Your task to perform on an android device: Open Yahoo.com Image 0: 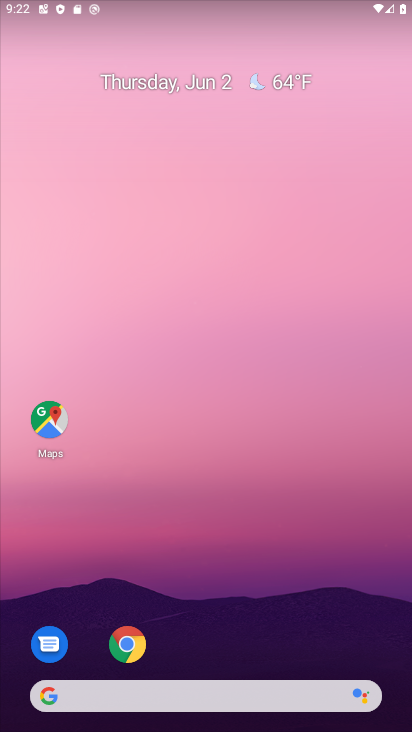
Step 0: press home button
Your task to perform on an android device: Open Yahoo.com Image 1: 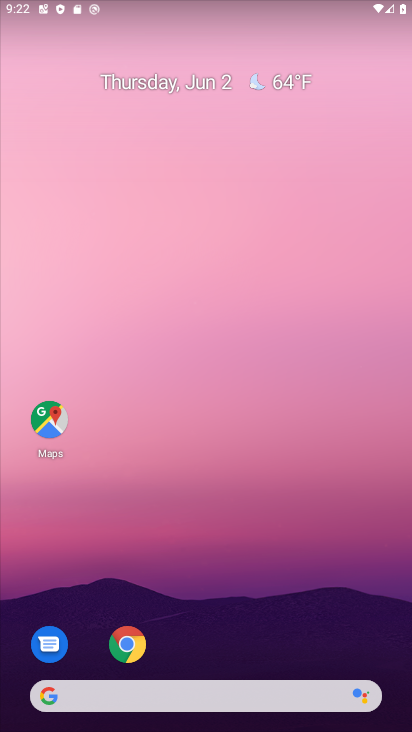
Step 1: click (124, 655)
Your task to perform on an android device: Open Yahoo.com Image 2: 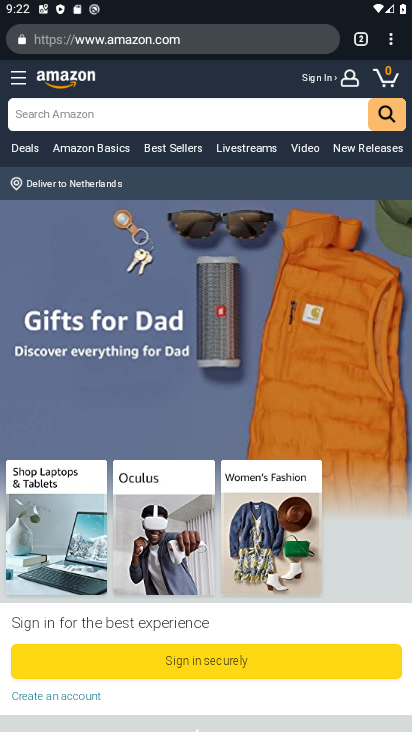
Step 2: click (199, 41)
Your task to perform on an android device: Open Yahoo.com Image 3: 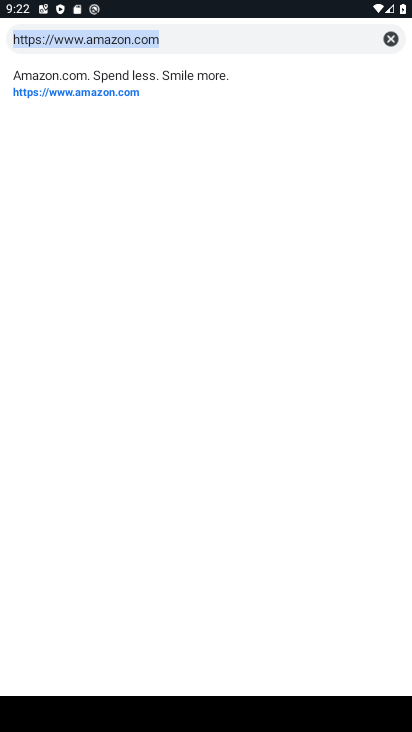
Step 3: click (384, 37)
Your task to perform on an android device: Open Yahoo.com Image 4: 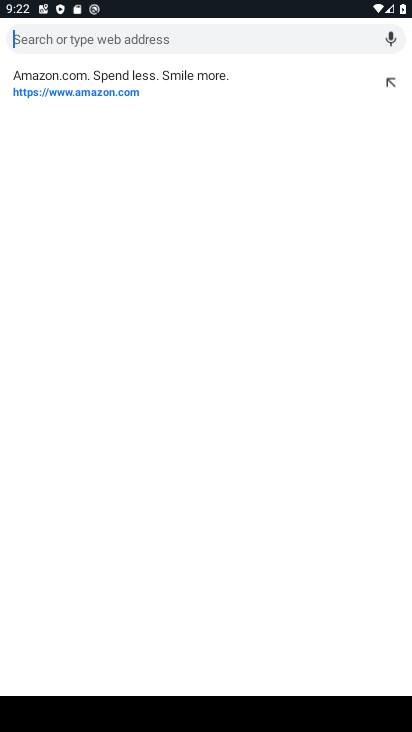
Step 4: type "Yahoo.com"
Your task to perform on an android device: Open Yahoo.com Image 5: 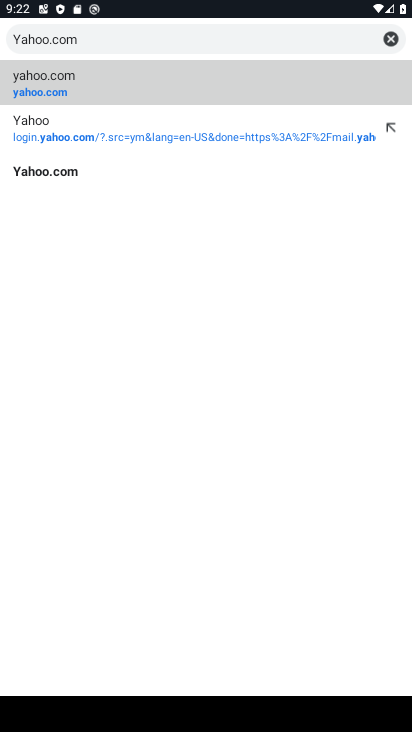
Step 5: click (187, 72)
Your task to perform on an android device: Open Yahoo.com Image 6: 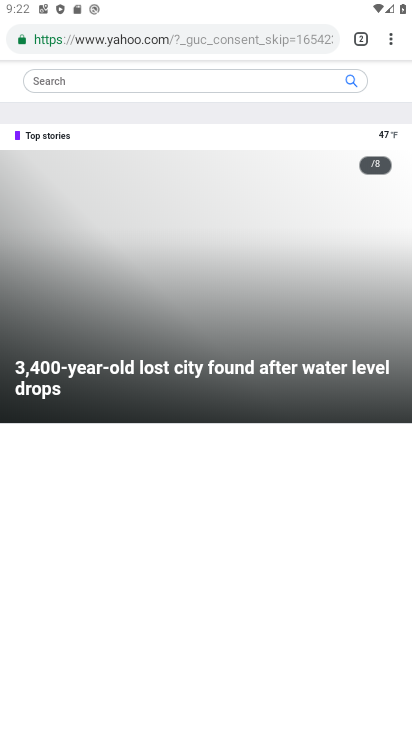
Step 6: task complete